Your task to perform on an android device: turn on location history Image 0: 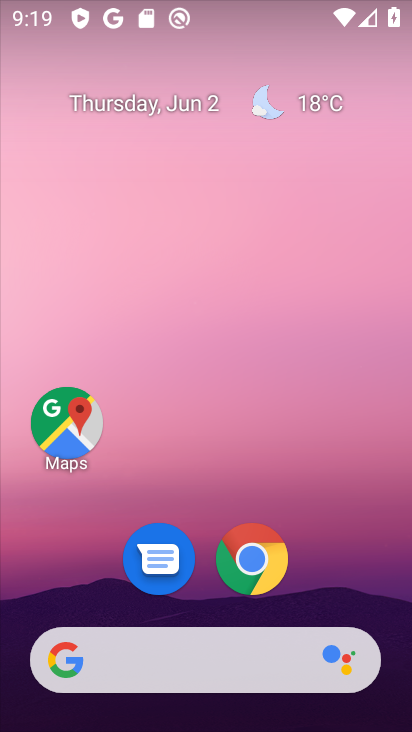
Step 0: drag from (342, 532) to (248, 44)
Your task to perform on an android device: turn on location history Image 1: 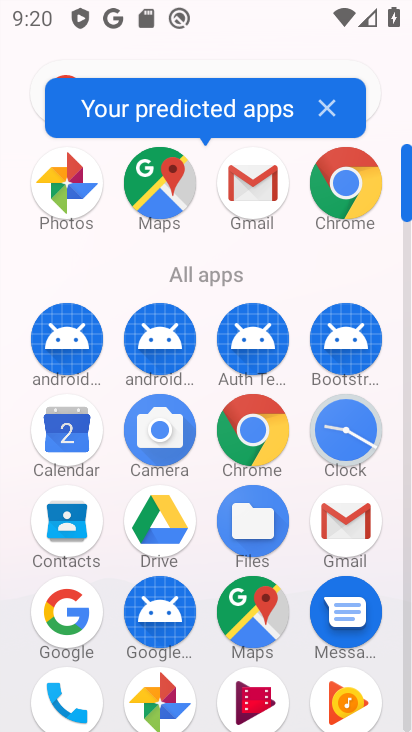
Step 1: drag from (99, 281) to (114, 71)
Your task to perform on an android device: turn on location history Image 2: 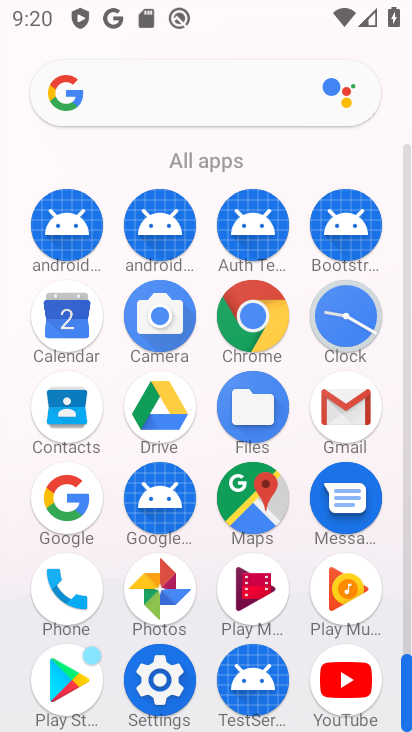
Step 2: click (160, 679)
Your task to perform on an android device: turn on location history Image 3: 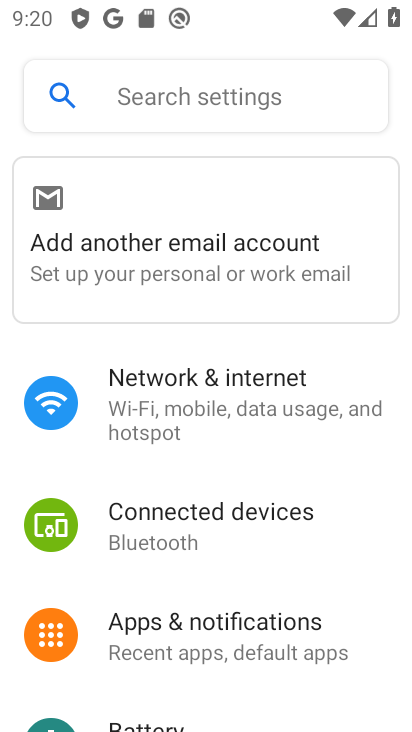
Step 3: drag from (220, 507) to (231, 464)
Your task to perform on an android device: turn on location history Image 4: 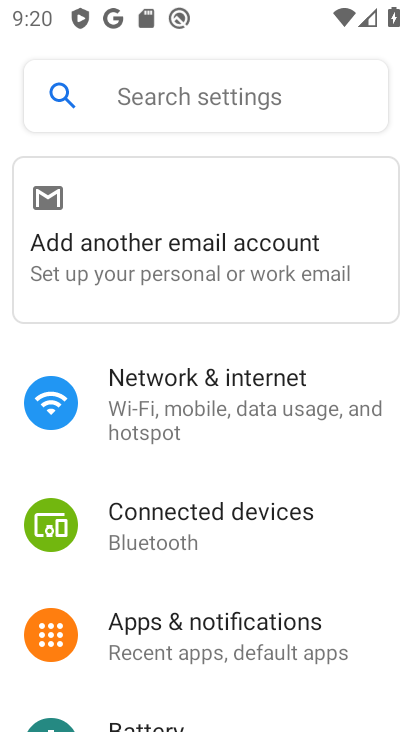
Step 4: drag from (193, 678) to (249, 469)
Your task to perform on an android device: turn on location history Image 5: 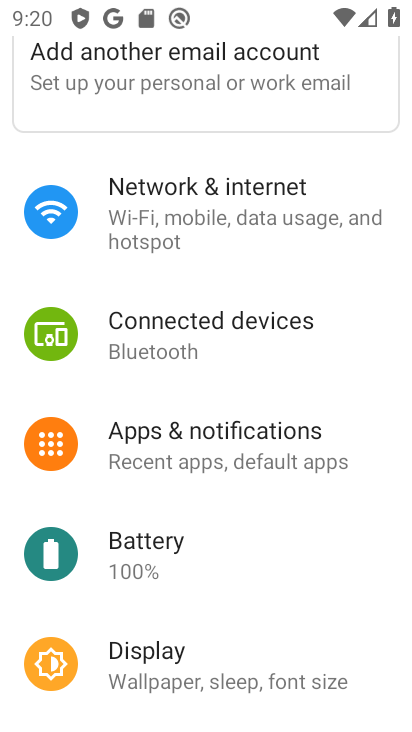
Step 5: drag from (203, 615) to (270, 473)
Your task to perform on an android device: turn on location history Image 6: 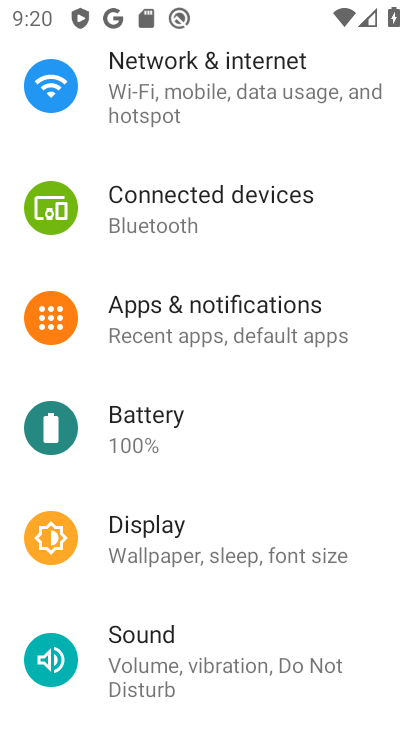
Step 6: drag from (190, 608) to (260, 496)
Your task to perform on an android device: turn on location history Image 7: 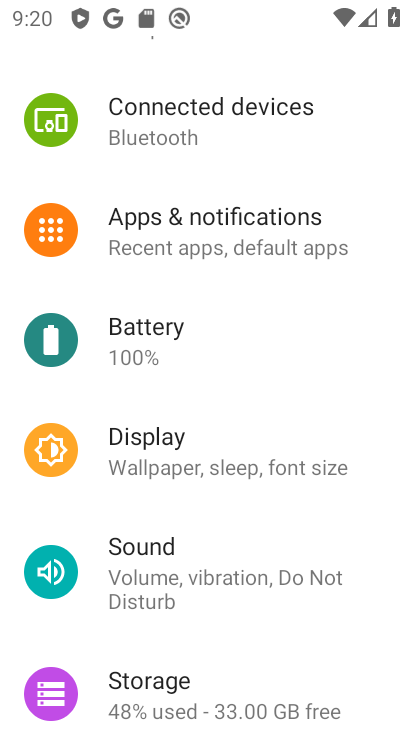
Step 7: drag from (159, 635) to (243, 490)
Your task to perform on an android device: turn on location history Image 8: 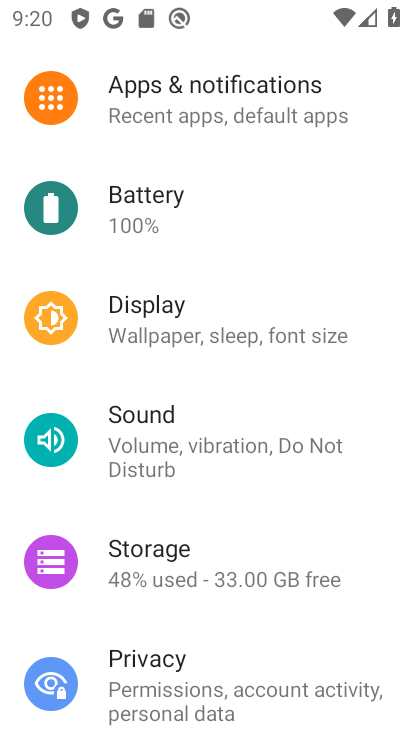
Step 8: drag from (168, 622) to (265, 472)
Your task to perform on an android device: turn on location history Image 9: 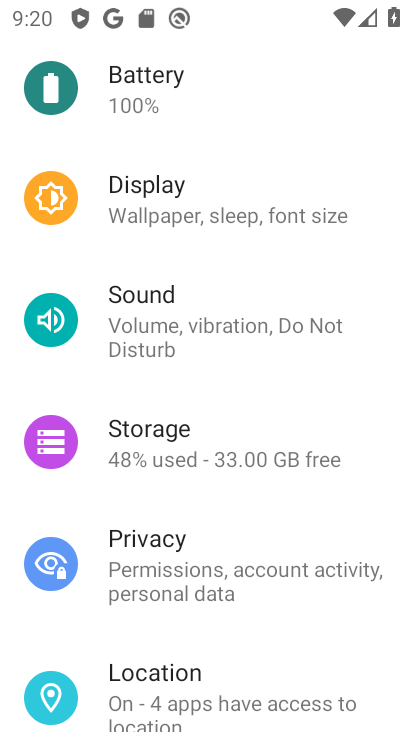
Step 9: drag from (171, 630) to (266, 478)
Your task to perform on an android device: turn on location history Image 10: 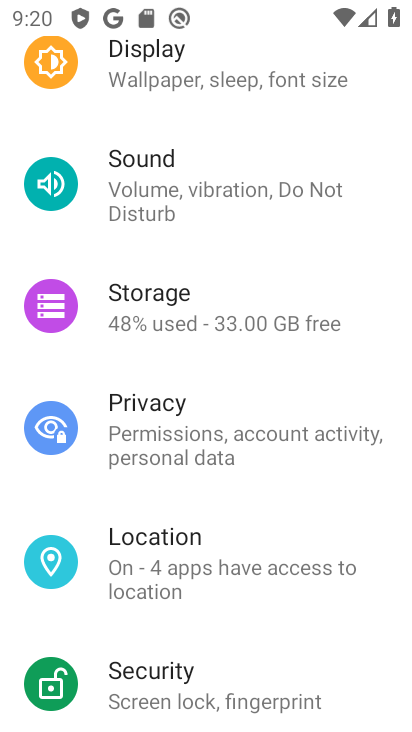
Step 10: click (196, 586)
Your task to perform on an android device: turn on location history Image 11: 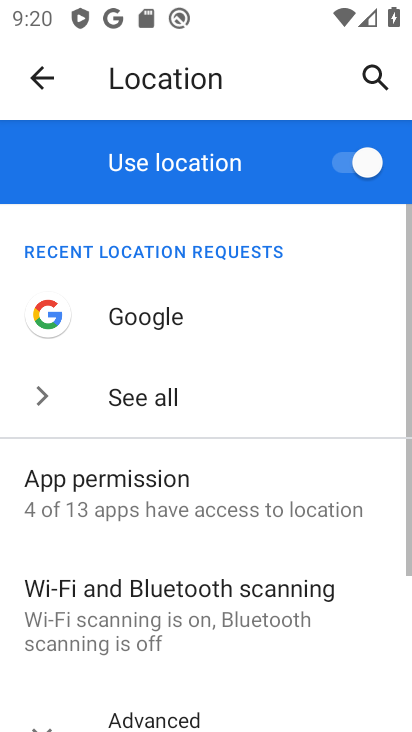
Step 11: drag from (194, 554) to (289, 403)
Your task to perform on an android device: turn on location history Image 12: 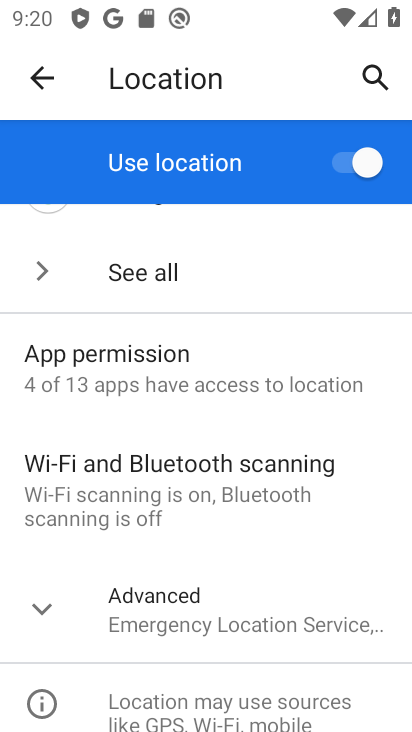
Step 12: click (219, 618)
Your task to perform on an android device: turn on location history Image 13: 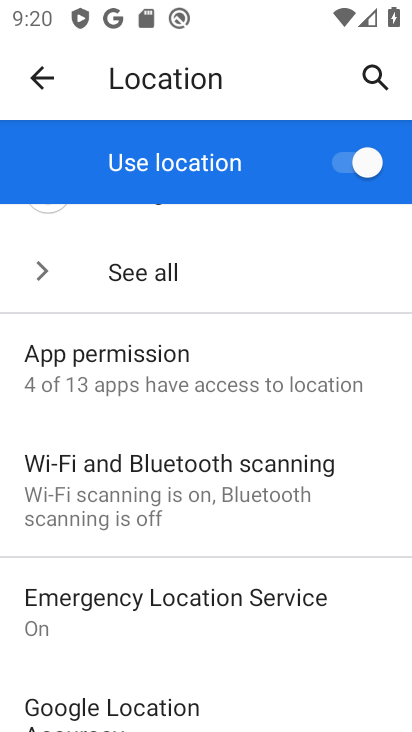
Step 13: drag from (208, 628) to (278, 463)
Your task to perform on an android device: turn on location history Image 14: 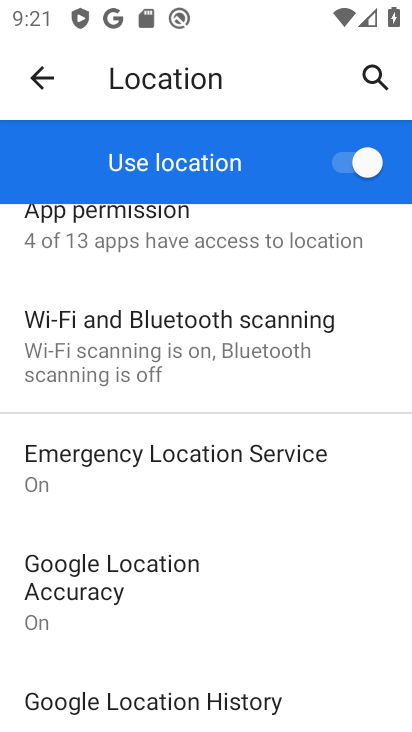
Step 14: drag from (194, 632) to (292, 448)
Your task to perform on an android device: turn on location history Image 15: 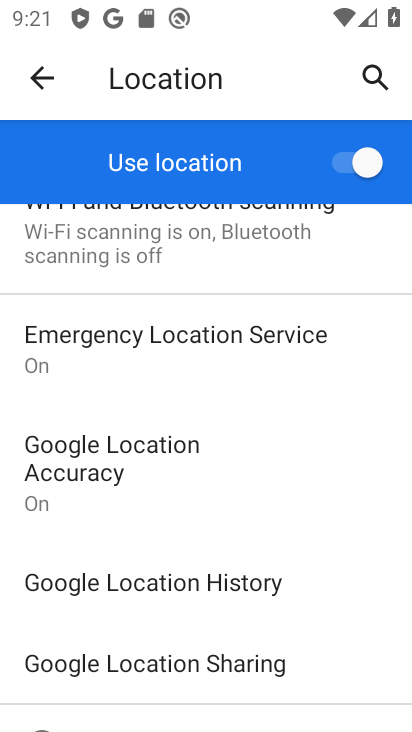
Step 15: click (190, 577)
Your task to perform on an android device: turn on location history Image 16: 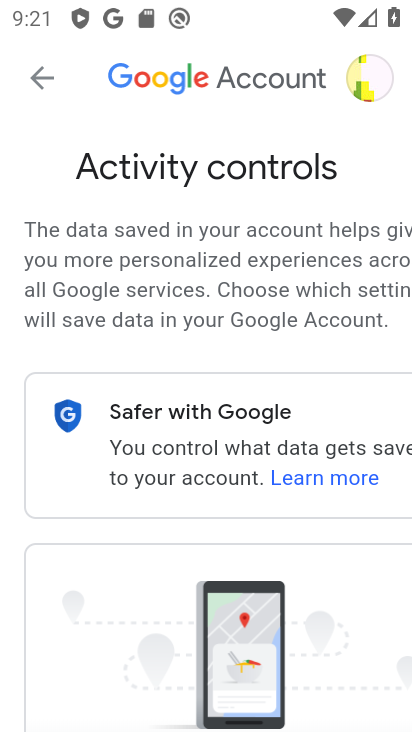
Step 16: task complete